Your task to perform on an android device: Search for a new 65" TV at Best Buy Image 0: 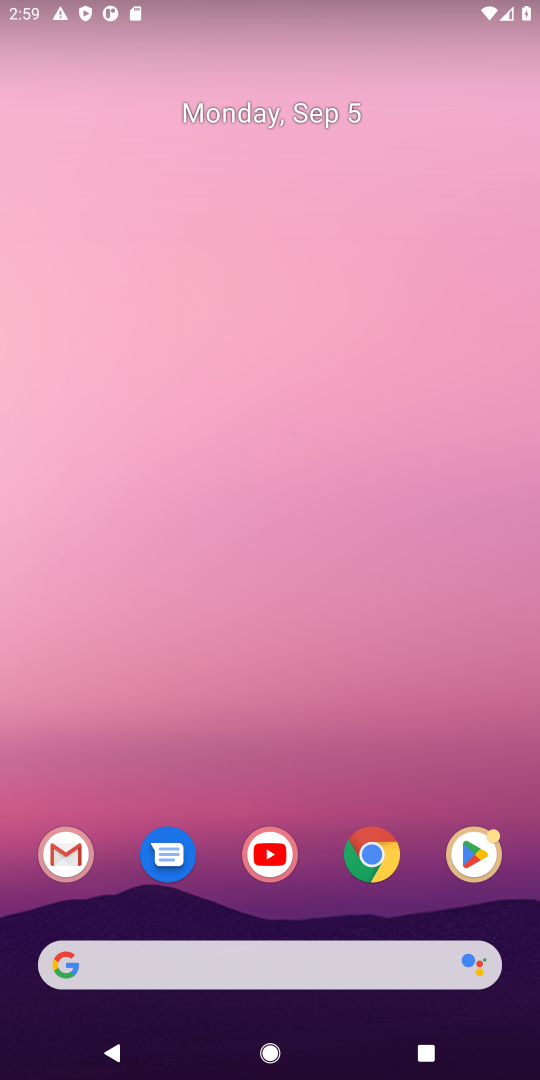
Step 0: press home button
Your task to perform on an android device: Search for a new 65" TV at Best Buy Image 1: 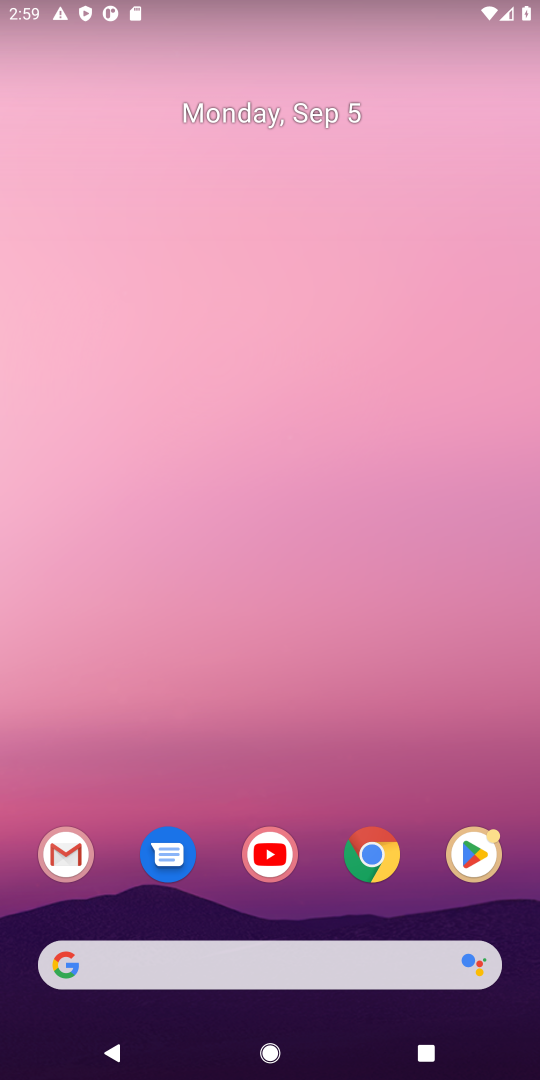
Step 1: click (380, 970)
Your task to perform on an android device: Search for a new 65" TV at Best Buy Image 2: 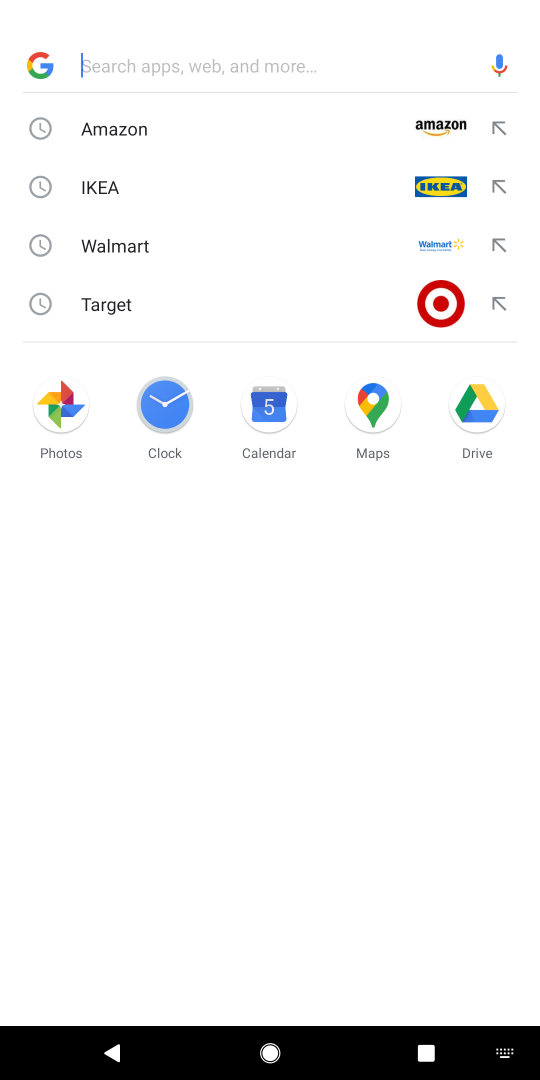
Step 2: type "best buy"
Your task to perform on an android device: Search for a new 65" TV at Best Buy Image 3: 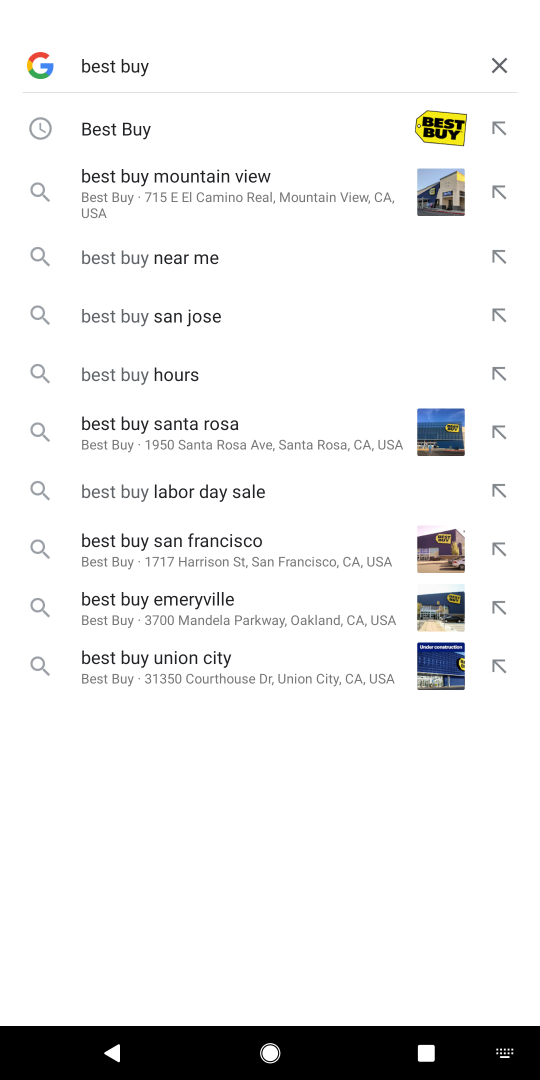
Step 3: press enter
Your task to perform on an android device: Search for a new 65" TV at Best Buy Image 4: 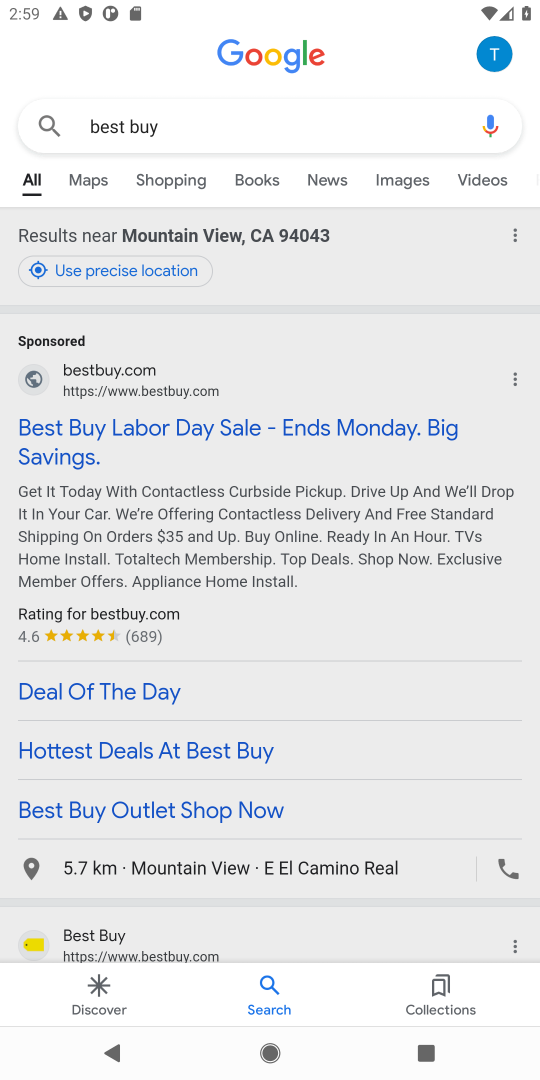
Step 4: click (337, 426)
Your task to perform on an android device: Search for a new 65" TV at Best Buy Image 5: 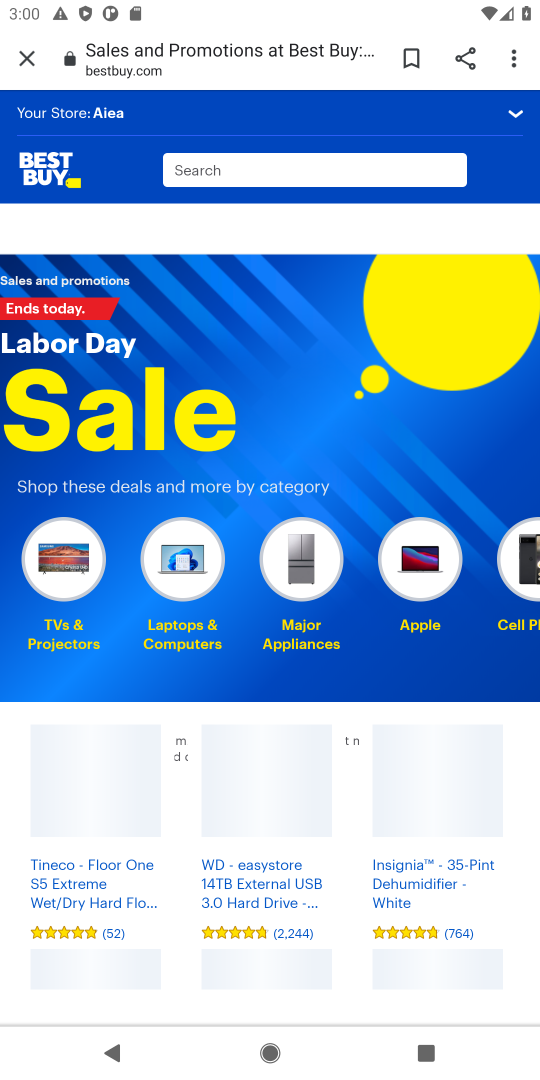
Step 5: click (256, 161)
Your task to perform on an android device: Search for a new 65" TV at Best Buy Image 6: 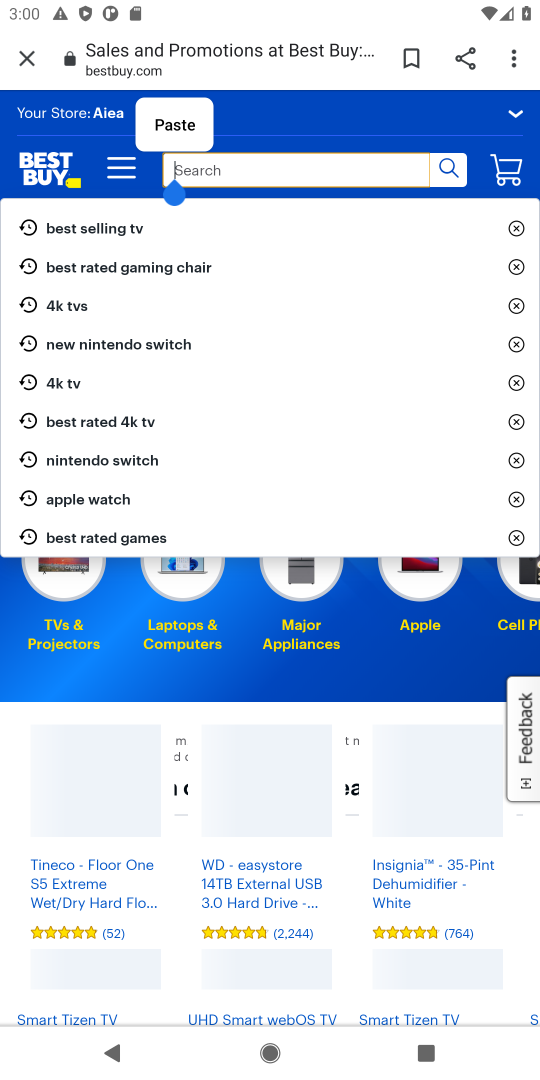
Step 6: press enter
Your task to perform on an android device: Search for a new 65" TV at Best Buy Image 7: 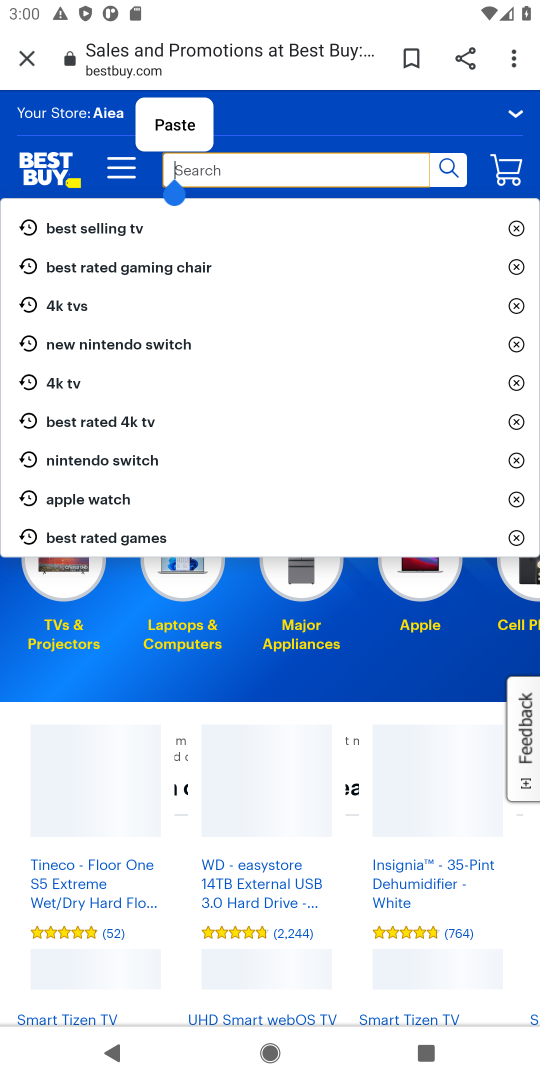
Step 7: type "new 65 tv"
Your task to perform on an android device: Search for a new 65" TV at Best Buy Image 8: 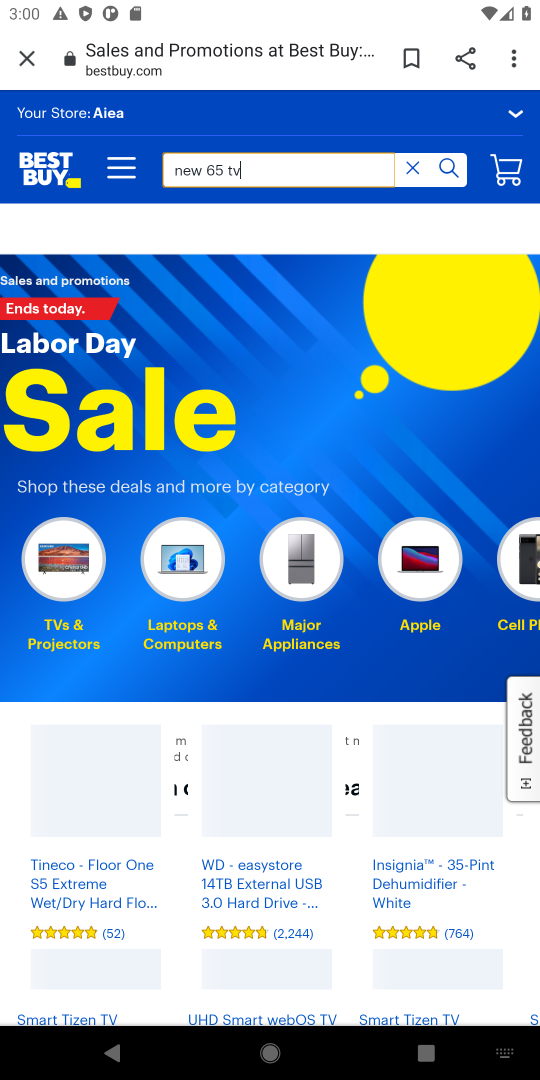
Step 8: click (446, 167)
Your task to perform on an android device: Search for a new 65" TV at Best Buy Image 9: 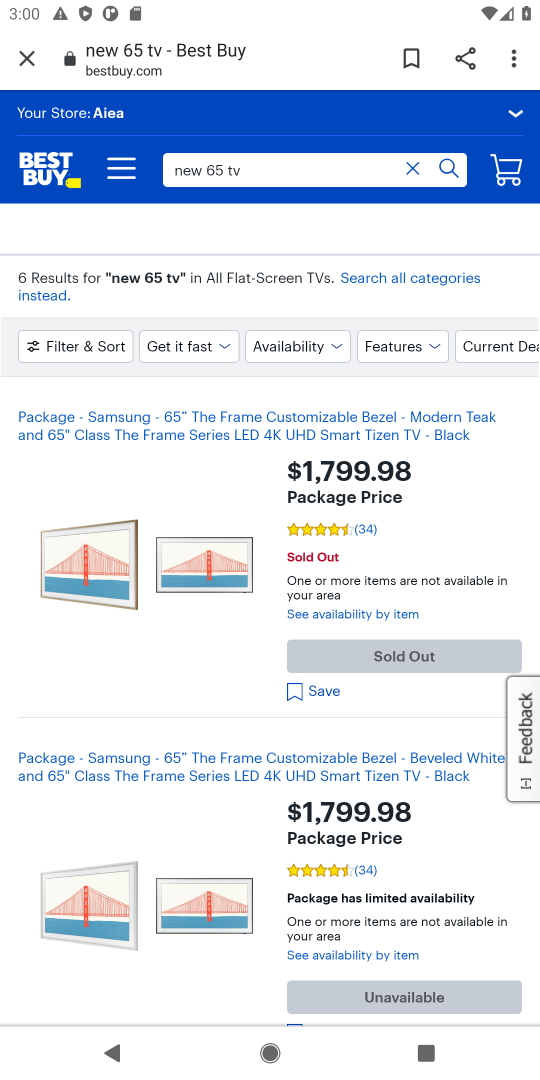
Step 9: task complete